Your task to perform on an android device: Open notification settings Image 0: 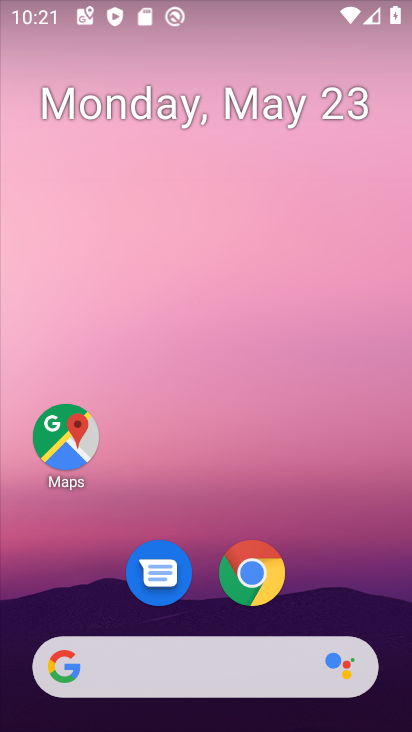
Step 0: drag from (216, 652) to (217, 24)
Your task to perform on an android device: Open notification settings Image 1: 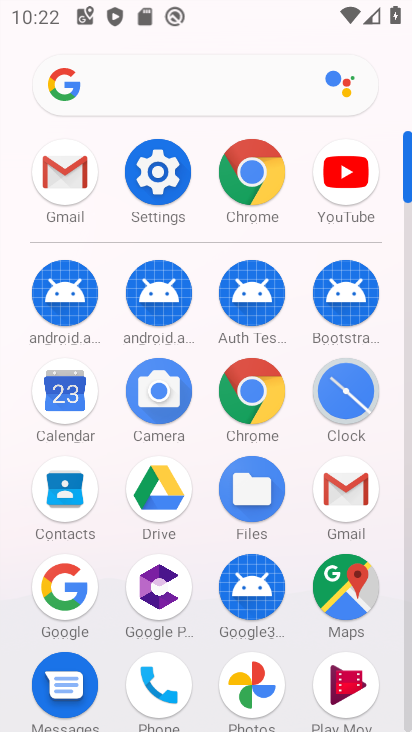
Step 1: click (166, 176)
Your task to perform on an android device: Open notification settings Image 2: 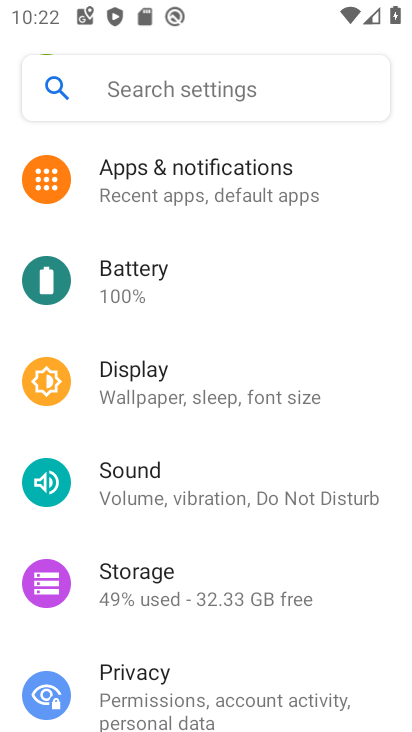
Step 2: click (214, 197)
Your task to perform on an android device: Open notification settings Image 3: 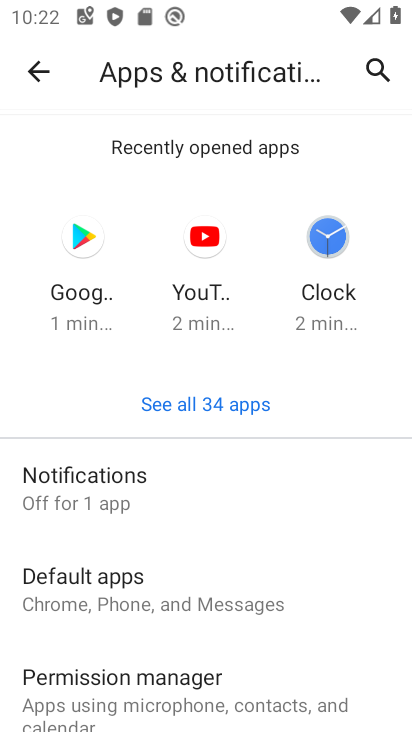
Step 3: click (211, 483)
Your task to perform on an android device: Open notification settings Image 4: 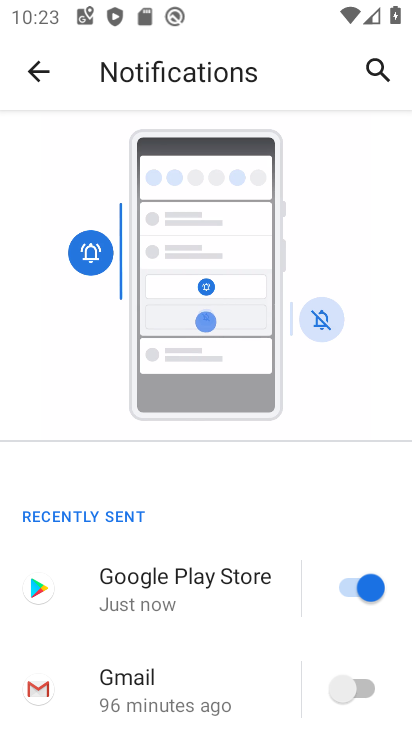
Step 4: task complete